Your task to perform on an android device: stop showing notifications on the lock screen Image 0: 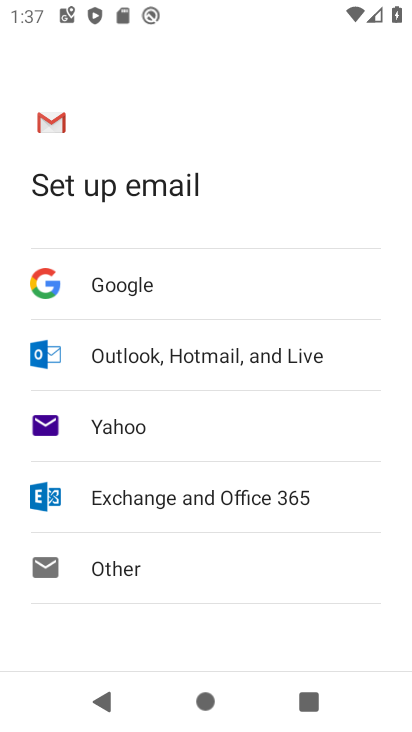
Step 0: press home button
Your task to perform on an android device: stop showing notifications on the lock screen Image 1: 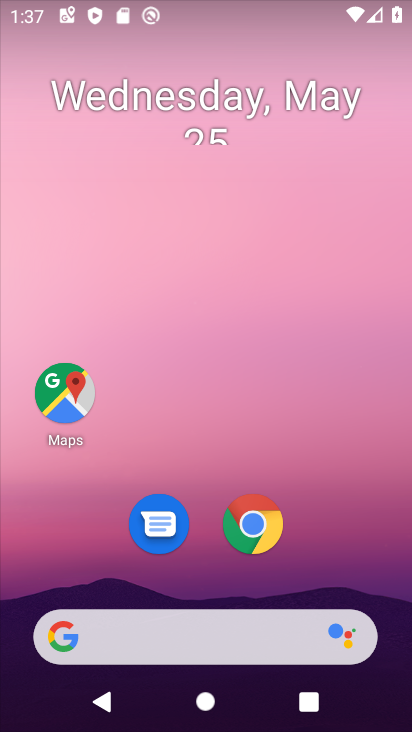
Step 1: drag from (238, 465) to (349, 16)
Your task to perform on an android device: stop showing notifications on the lock screen Image 2: 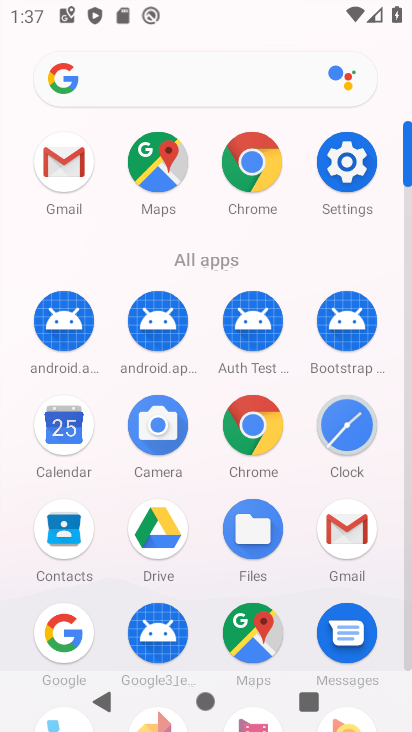
Step 2: click (346, 169)
Your task to perform on an android device: stop showing notifications on the lock screen Image 3: 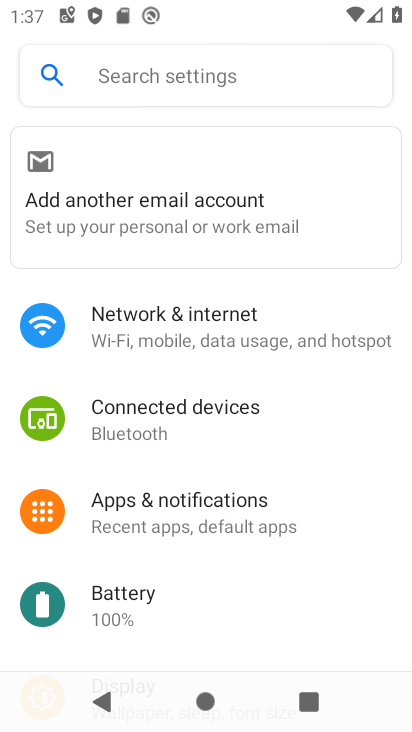
Step 3: click (206, 516)
Your task to perform on an android device: stop showing notifications on the lock screen Image 4: 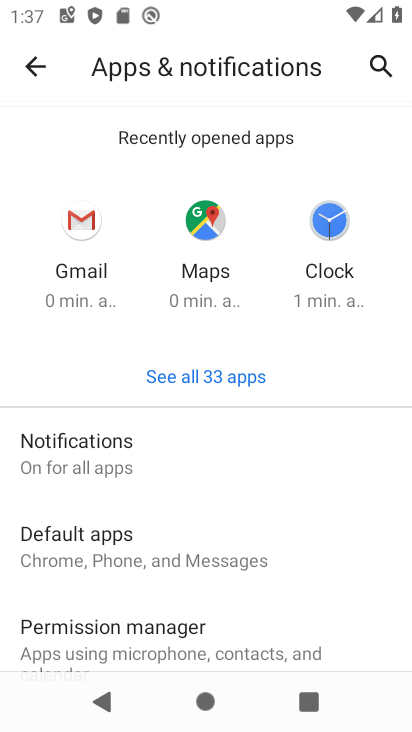
Step 4: drag from (217, 483) to (228, 284)
Your task to perform on an android device: stop showing notifications on the lock screen Image 5: 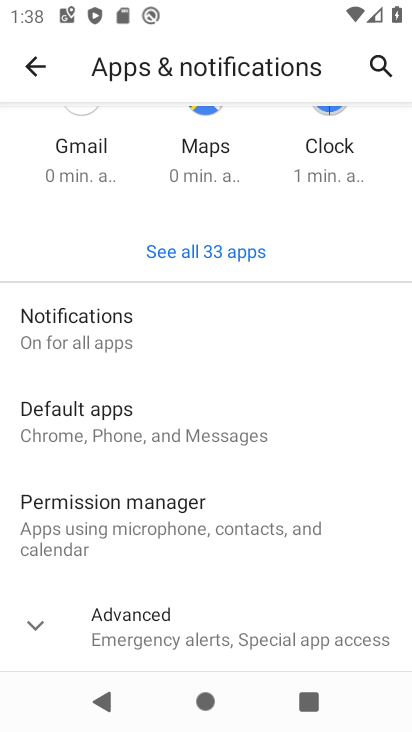
Step 5: click (216, 328)
Your task to perform on an android device: stop showing notifications on the lock screen Image 6: 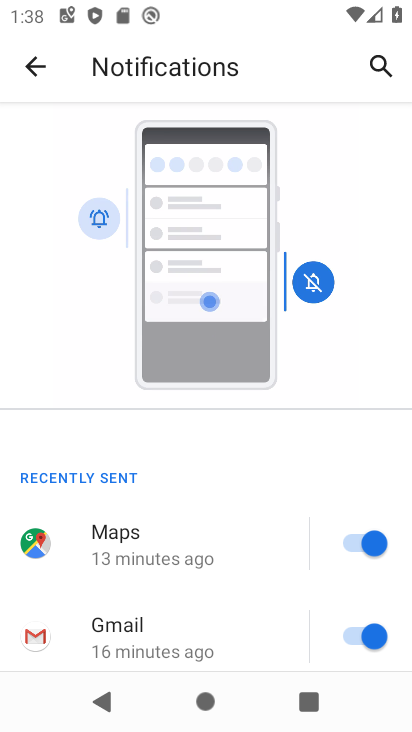
Step 6: drag from (211, 516) to (285, 43)
Your task to perform on an android device: stop showing notifications on the lock screen Image 7: 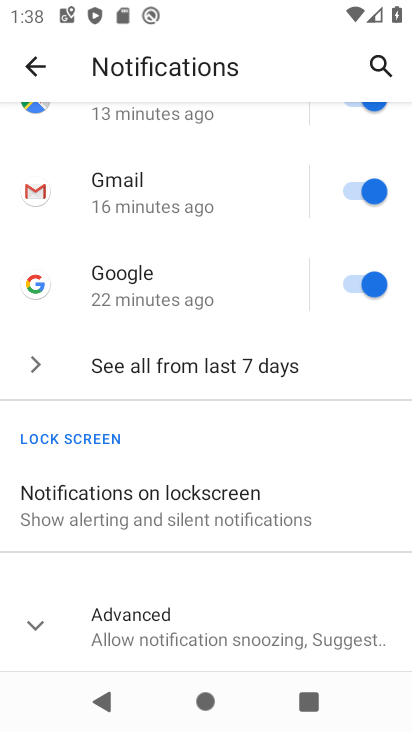
Step 7: click (210, 491)
Your task to perform on an android device: stop showing notifications on the lock screen Image 8: 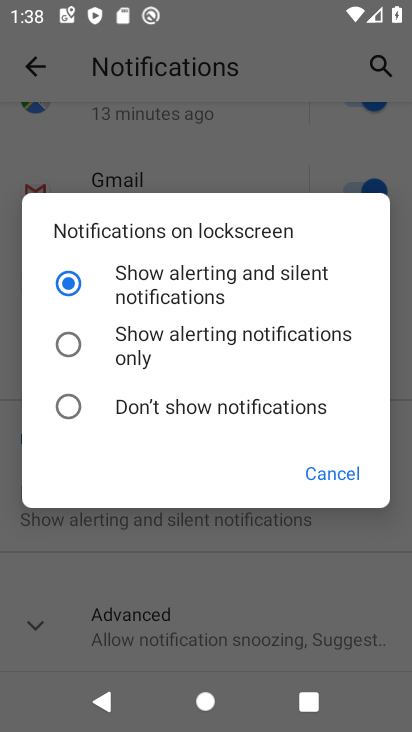
Step 8: click (69, 401)
Your task to perform on an android device: stop showing notifications on the lock screen Image 9: 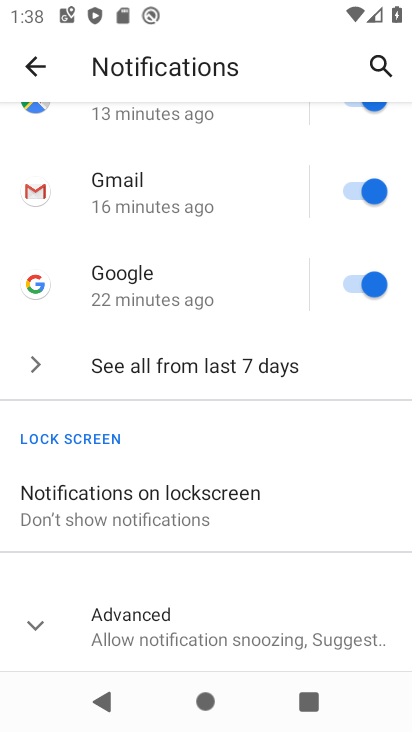
Step 9: task complete